Your task to perform on an android device: Show me my notifications Image 0: 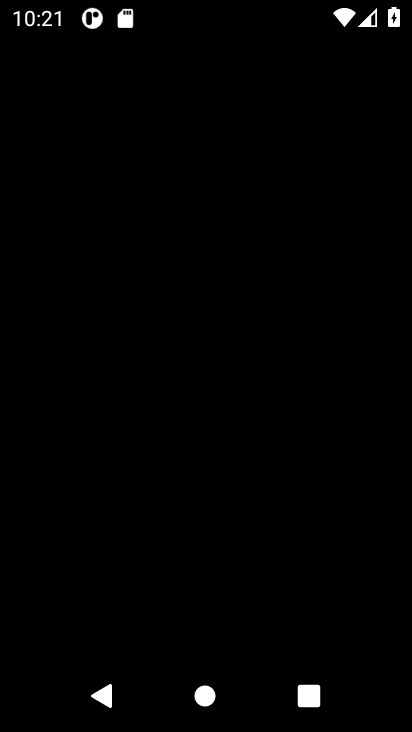
Step 0: press home button
Your task to perform on an android device: Show me my notifications Image 1: 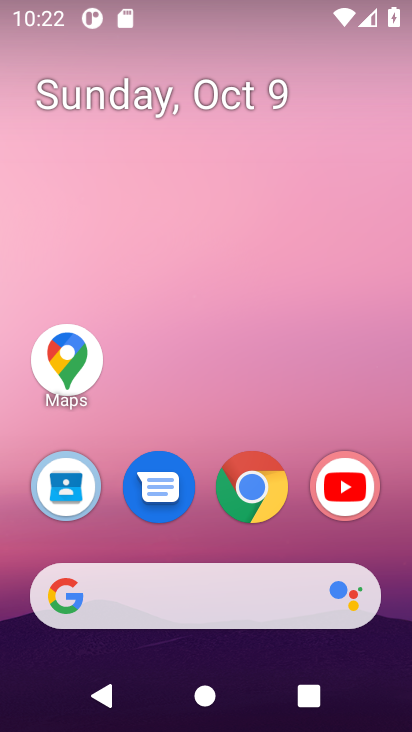
Step 1: task complete